Your task to perform on an android device: toggle wifi Image 0: 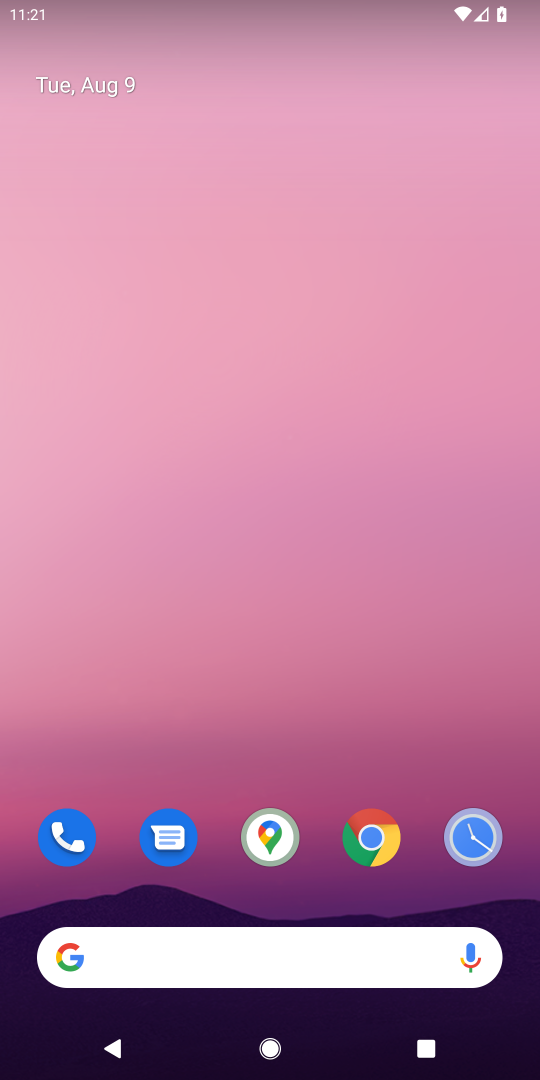
Step 0: drag from (303, 907) to (324, 85)
Your task to perform on an android device: toggle wifi Image 1: 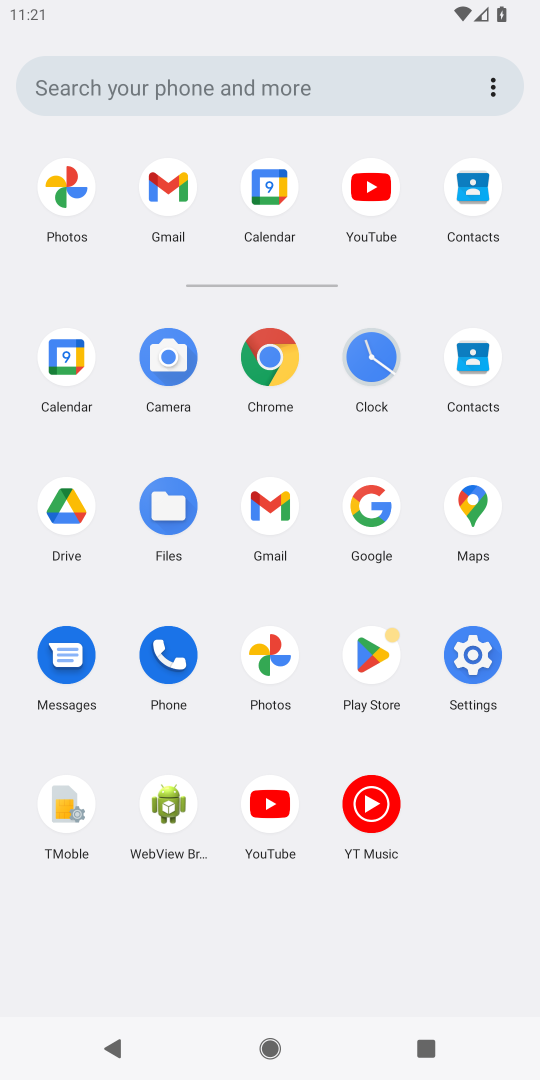
Step 1: click (474, 655)
Your task to perform on an android device: toggle wifi Image 2: 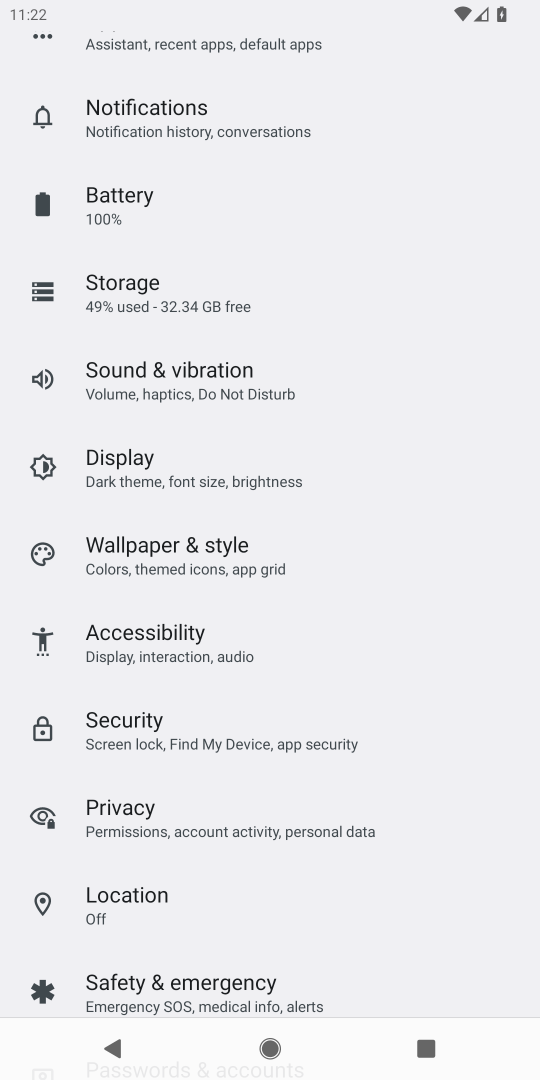
Step 2: drag from (131, 215) to (98, 843)
Your task to perform on an android device: toggle wifi Image 3: 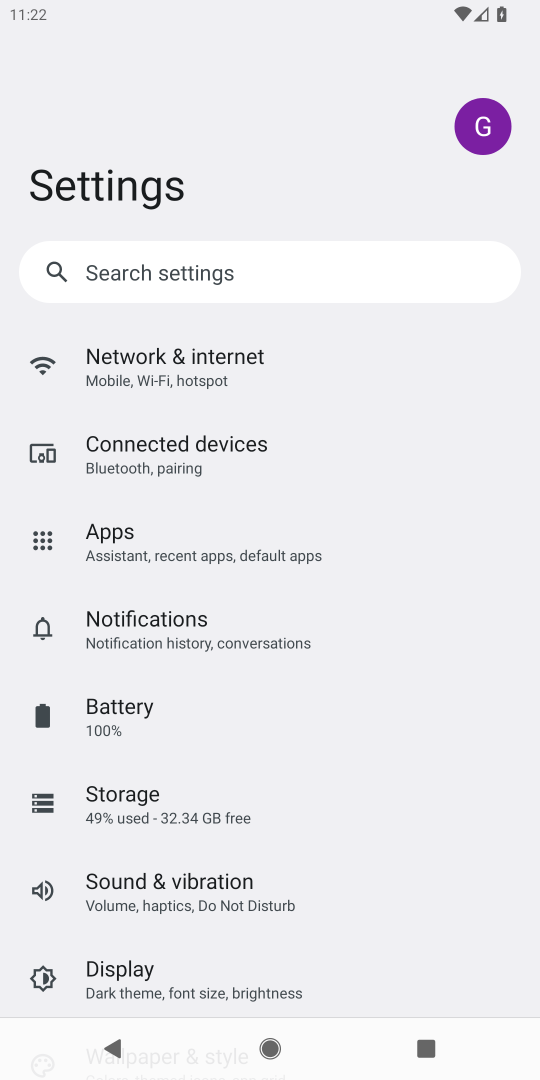
Step 3: click (157, 368)
Your task to perform on an android device: toggle wifi Image 4: 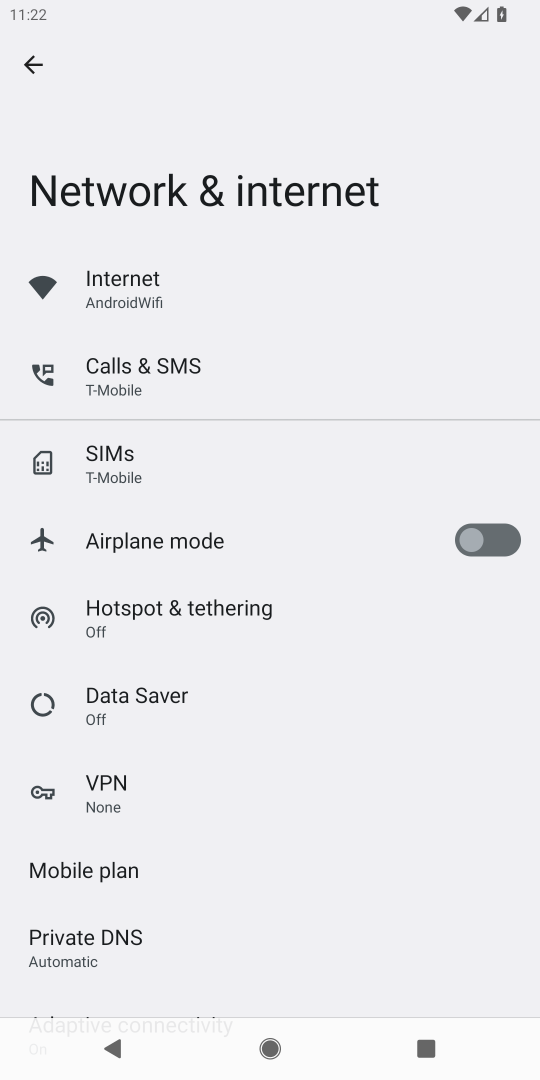
Step 4: click (113, 277)
Your task to perform on an android device: toggle wifi Image 5: 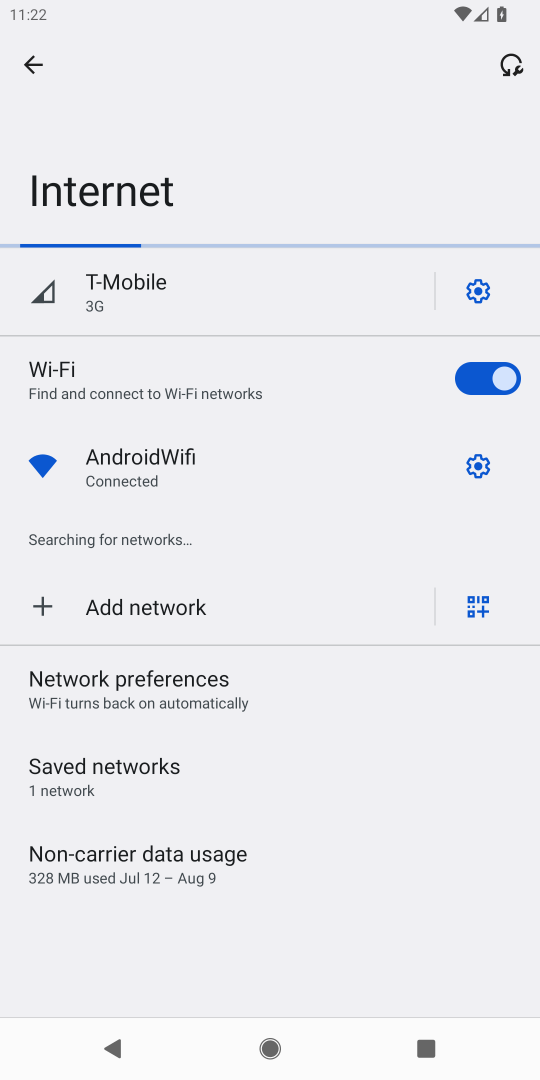
Step 5: click (485, 373)
Your task to perform on an android device: toggle wifi Image 6: 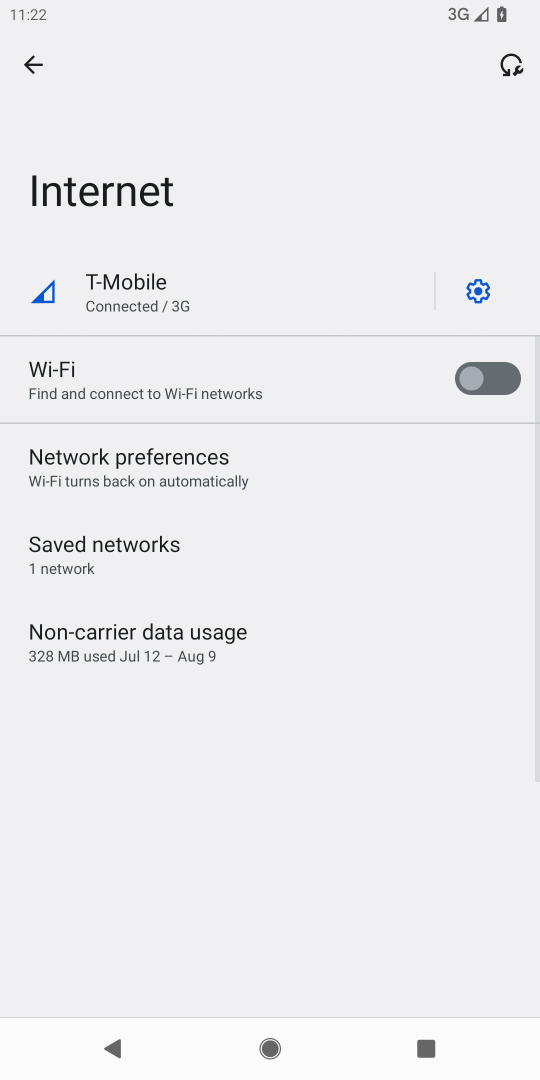
Step 6: task complete